Your task to perform on an android device: Open calendar and show me the first week of next month Image 0: 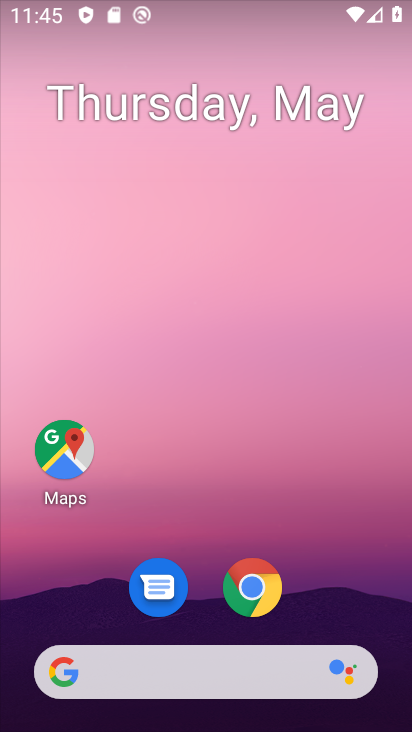
Step 0: drag from (227, 579) to (236, 78)
Your task to perform on an android device: Open calendar and show me the first week of next month Image 1: 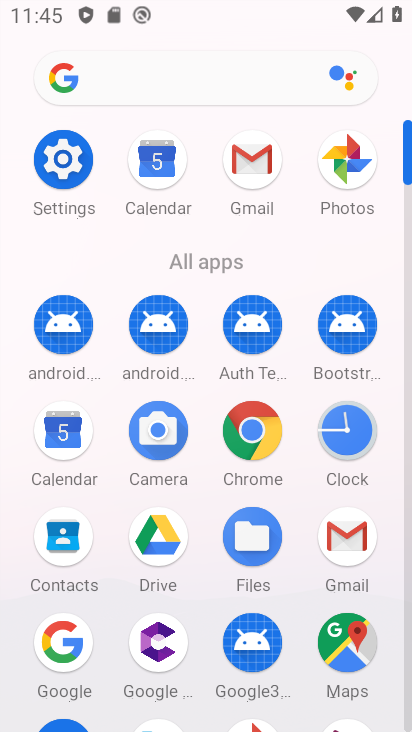
Step 1: click (65, 435)
Your task to perform on an android device: Open calendar and show me the first week of next month Image 2: 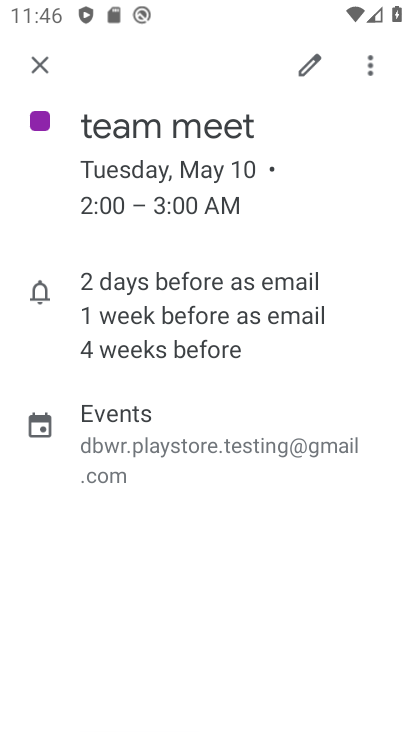
Step 2: click (19, 57)
Your task to perform on an android device: Open calendar and show me the first week of next month Image 3: 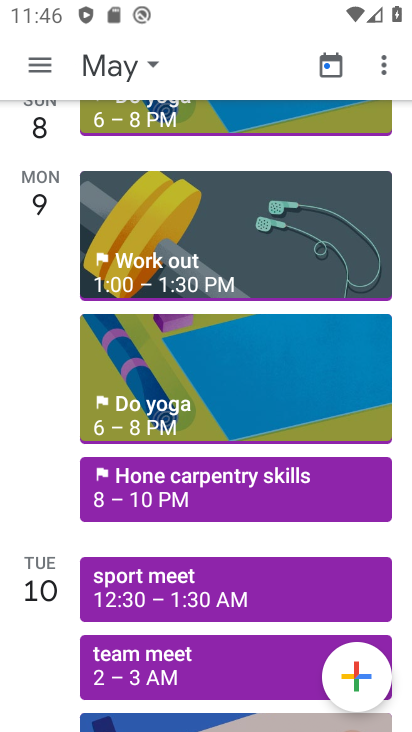
Step 3: click (125, 62)
Your task to perform on an android device: Open calendar and show me the first week of next month Image 4: 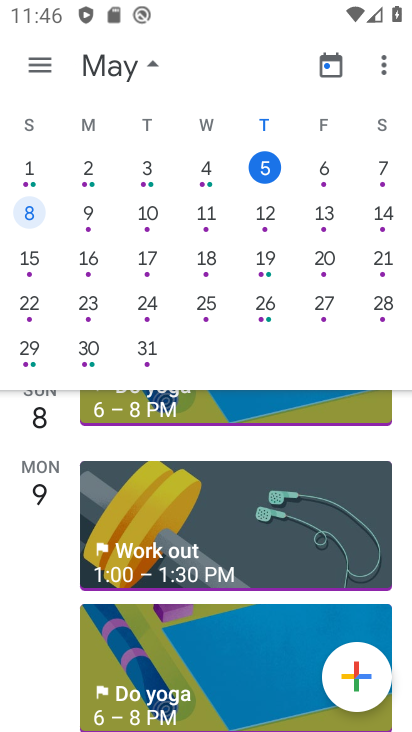
Step 4: drag from (398, 257) to (8, 233)
Your task to perform on an android device: Open calendar and show me the first week of next month Image 5: 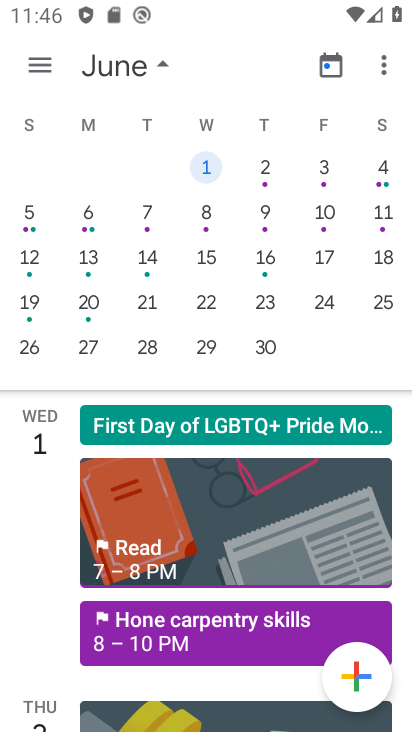
Step 5: click (208, 167)
Your task to perform on an android device: Open calendar and show me the first week of next month Image 6: 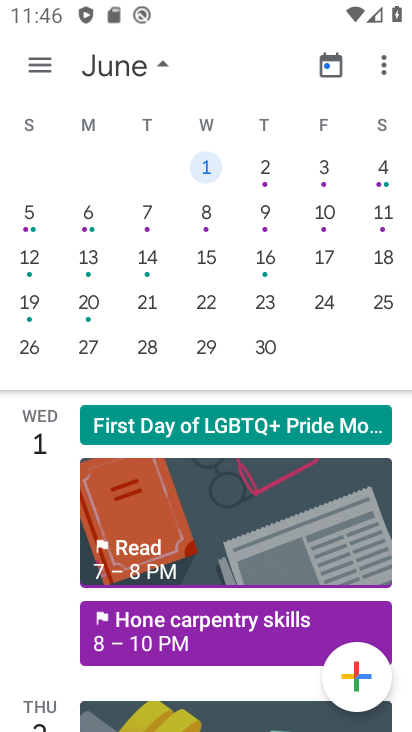
Step 6: task complete